Your task to perform on an android device: toggle wifi Image 0: 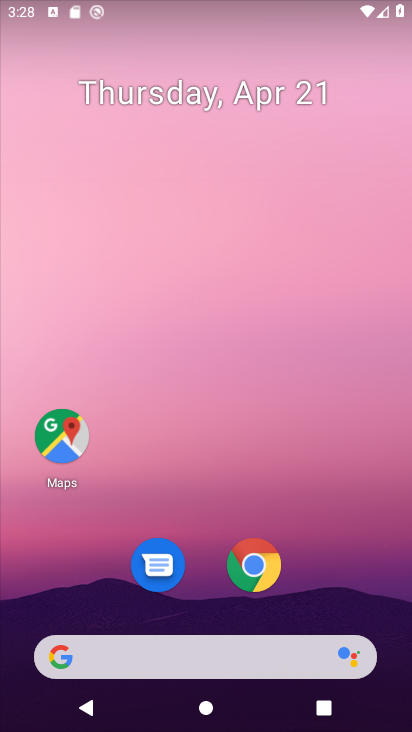
Step 0: click (294, 646)
Your task to perform on an android device: toggle wifi Image 1: 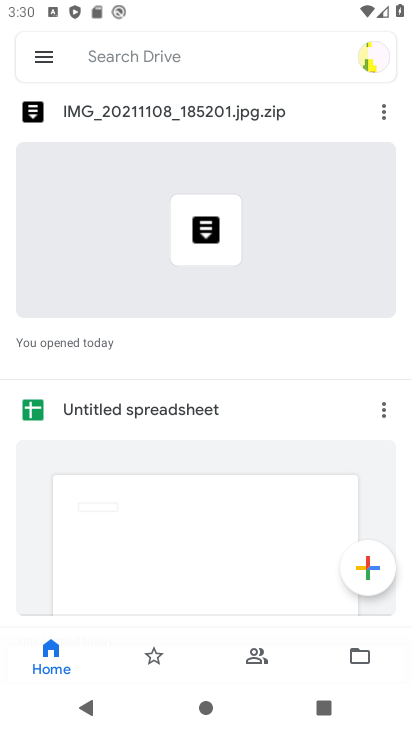
Step 1: press home button
Your task to perform on an android device: toggle wifi Image 2: 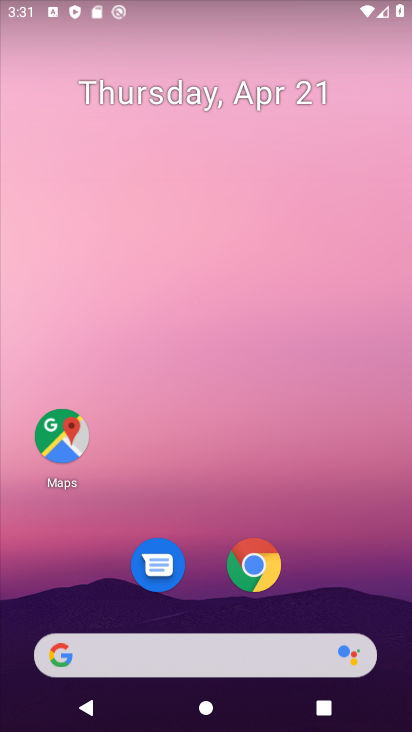
Step 2: drag from (311, 548) to (342, 79)
Your task to perform on an android device: toggle wifi Image 3: 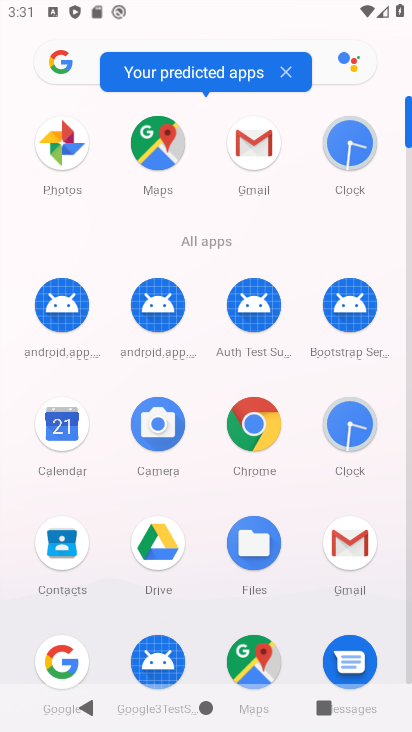
Step 3: drag from (214, 584) to (185, 231)
Your task to perform on an android device: toggle wifi Image 4: 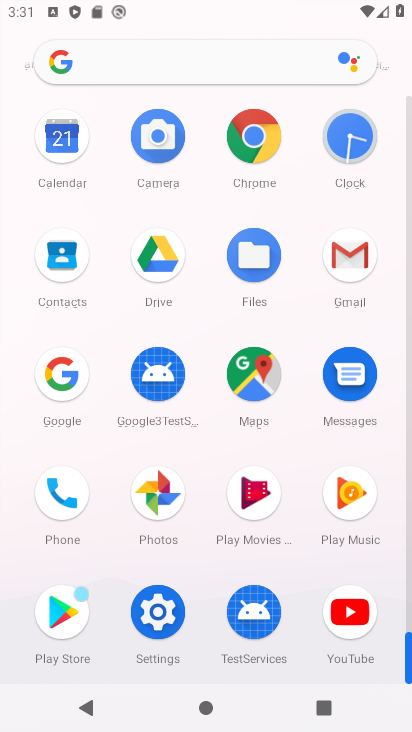
Step 4: click (152, 594)
Your task to perform on an android device: toggle wifi Image 5: 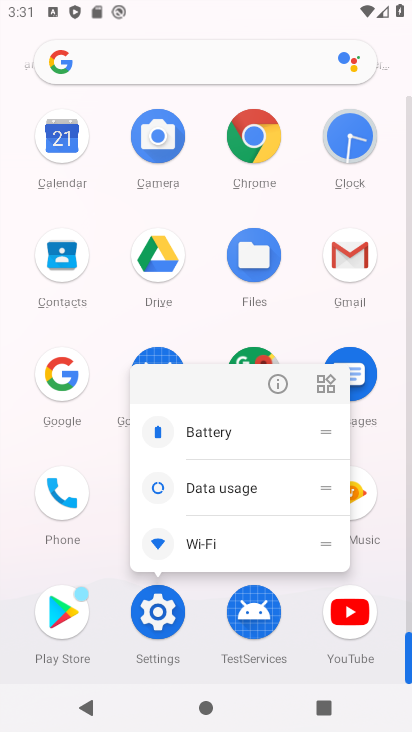
Step 5: click (152, 593)
Your task to perform on an android device: toggle wifi Image 6: 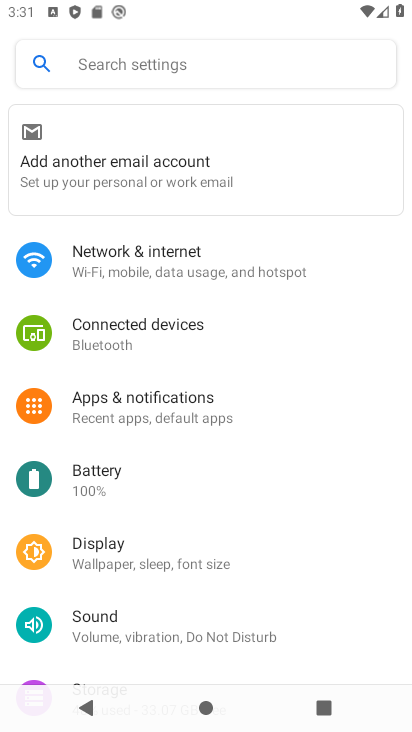
Step 6: click (241, 261)
Your task to perform on an android device: toggle wifi Image 7: 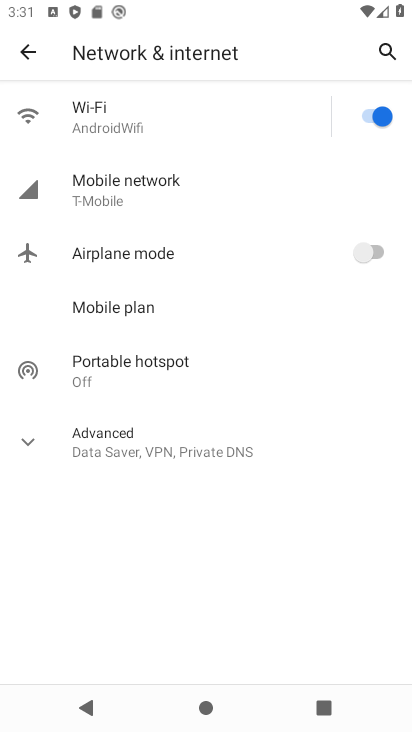
Step 7: click (370, 107)
Your task to perform on an android device: toggle wifi Image 8: 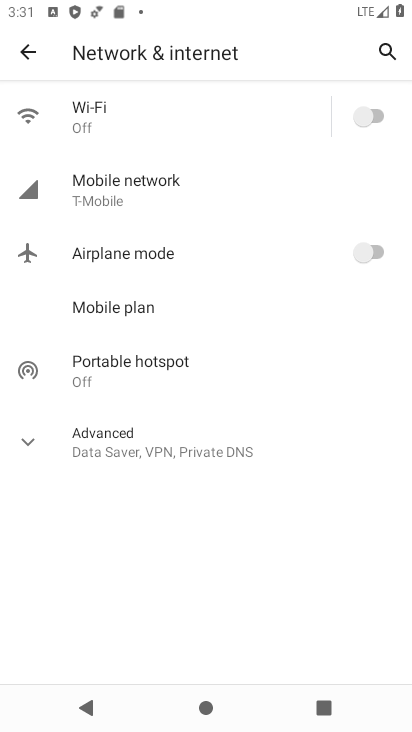
Step 8: task complete